Your task to perform on an android device: set default search engine in the chrome app Image 0: 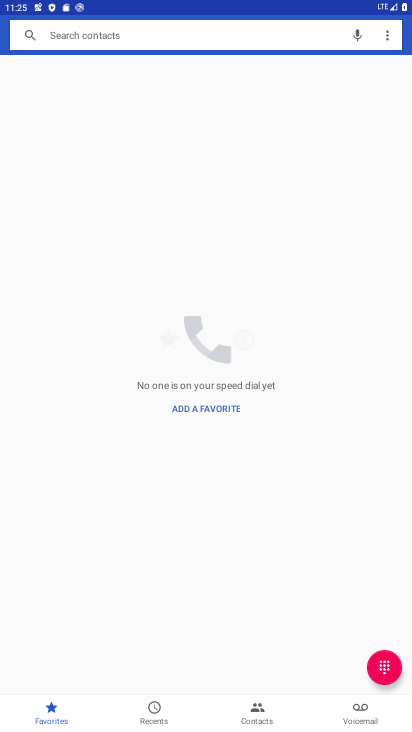
Step 0: press home button
Your task to perform on an android device: set default search engine in the chrome app Image 1: 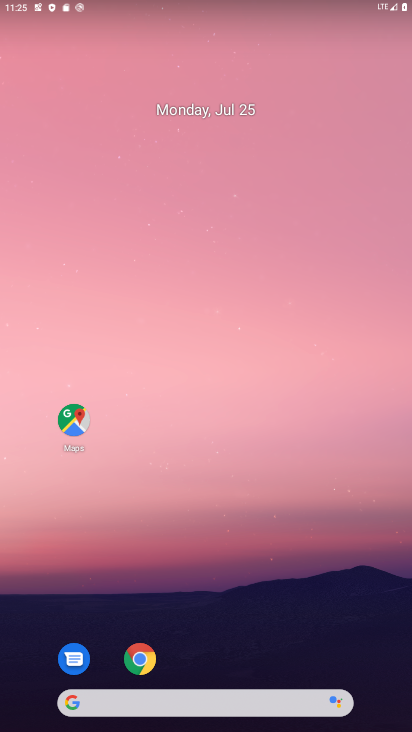
Step 1: drag from (258, 648) to (173, 100)
Your task to perform on an android device: set default search engine in the chrome app Image 2: 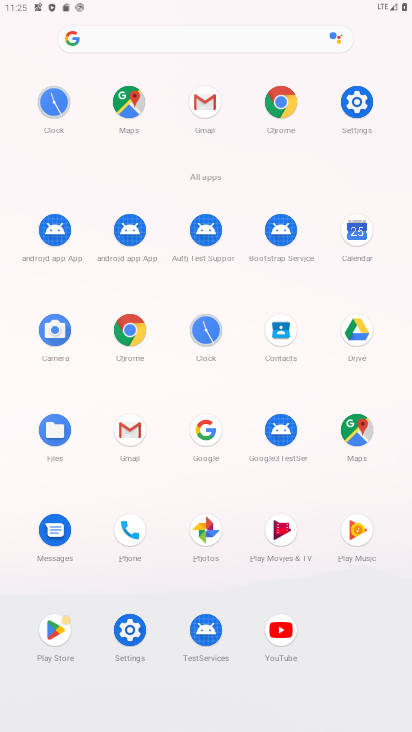
Step 2: click (285, 114)
Your task to perform on an android device: set default search engine in the chrome app Image 3: 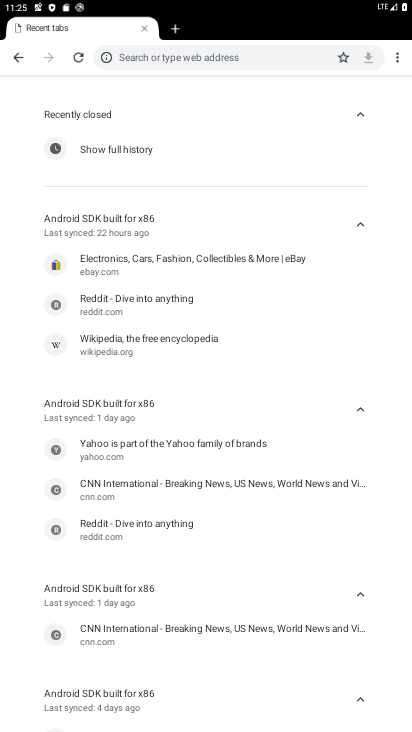
Step 3: click (399, 55)
Your task to perform on an android device: set default search engine in the chrome app Image 4: 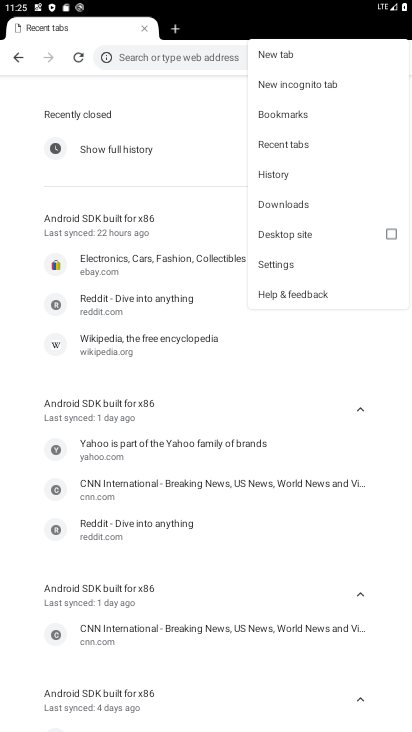
Step 4: click (329, 260)
Your task to perform on an android device: set default search engine in the chrome app Image 5: 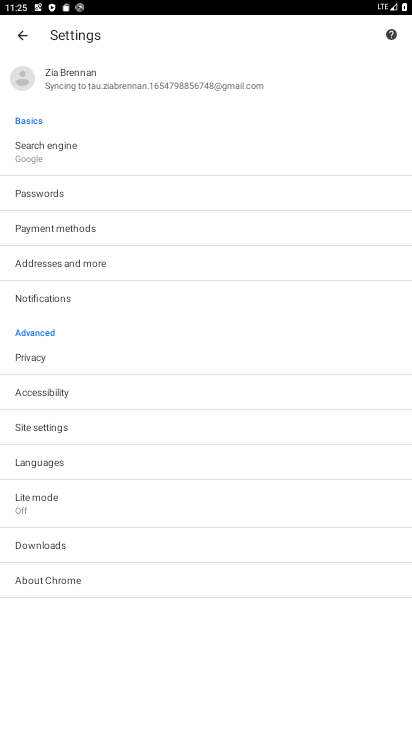
Step 5: click (97, 156)
Your task to perform on an android device: set default search engine in the chrome app Image 6: 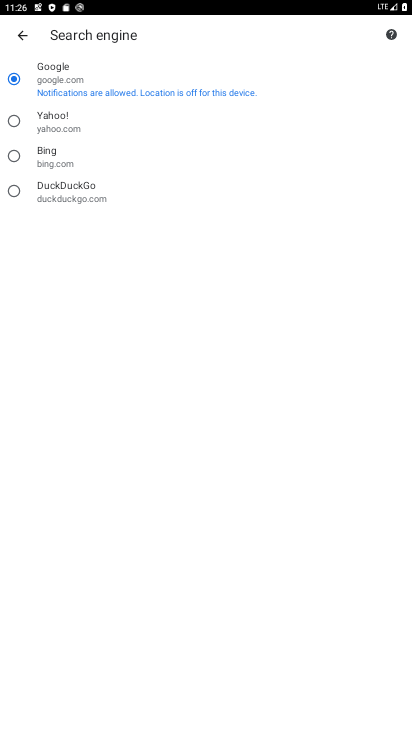
Step 6: click (102, 121)
Your task to perform on an android device: set default search engine in the chrome app Image 7: 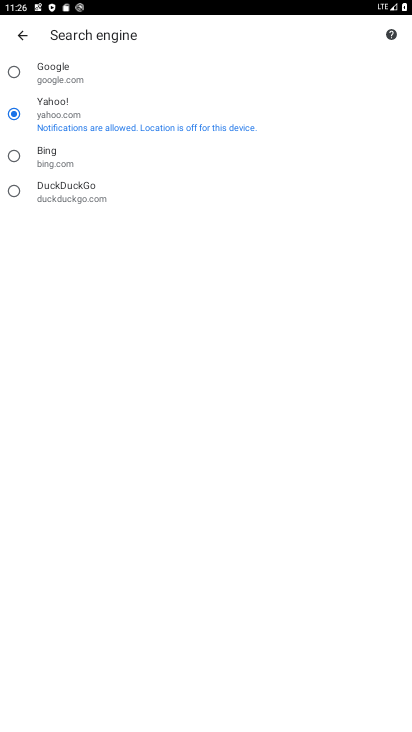
Step 7: task complete